Your task to perform on an android device: open a bookmark in the chrome app Image 0: 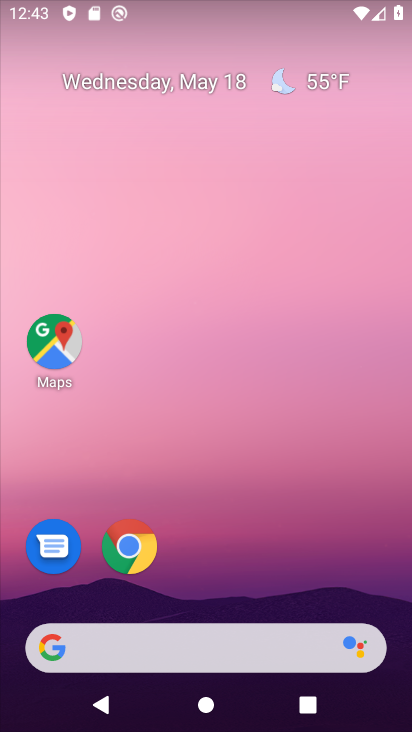
Step 0: drag from (305, 508) to (328, 151)
Your task to perform on an android device: open a bookmark in the chrome app Image 1: 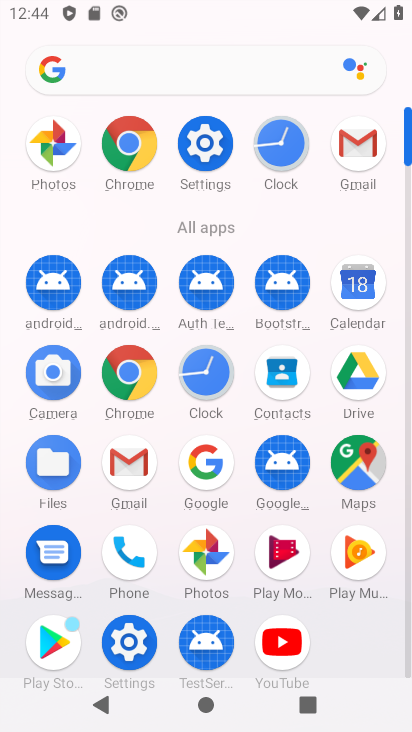
Step 1: click (136, 367)
Your task to perform on an android device: open a bookmark in the chrome app Image 2: 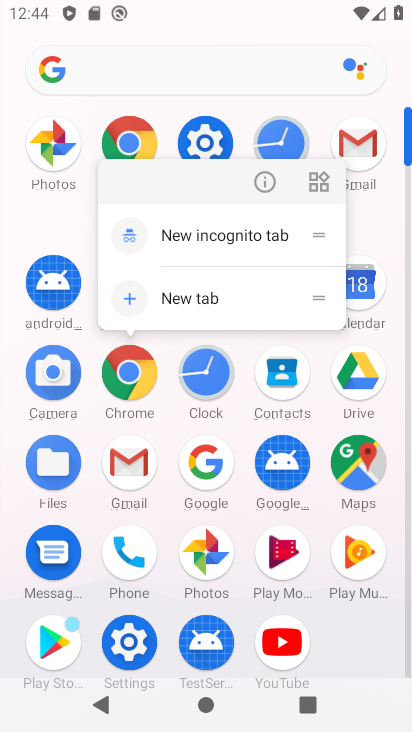
Step 2: click (146, 388)
Your task to perform on an android device: open a bookmark in the chrome app Image 3: 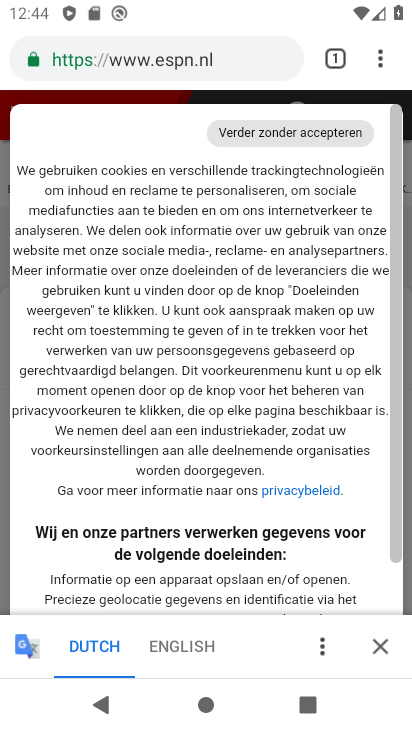
Step 3: task complete